Your task to perform on an android device: Open Maps and search for coffee Image 0: 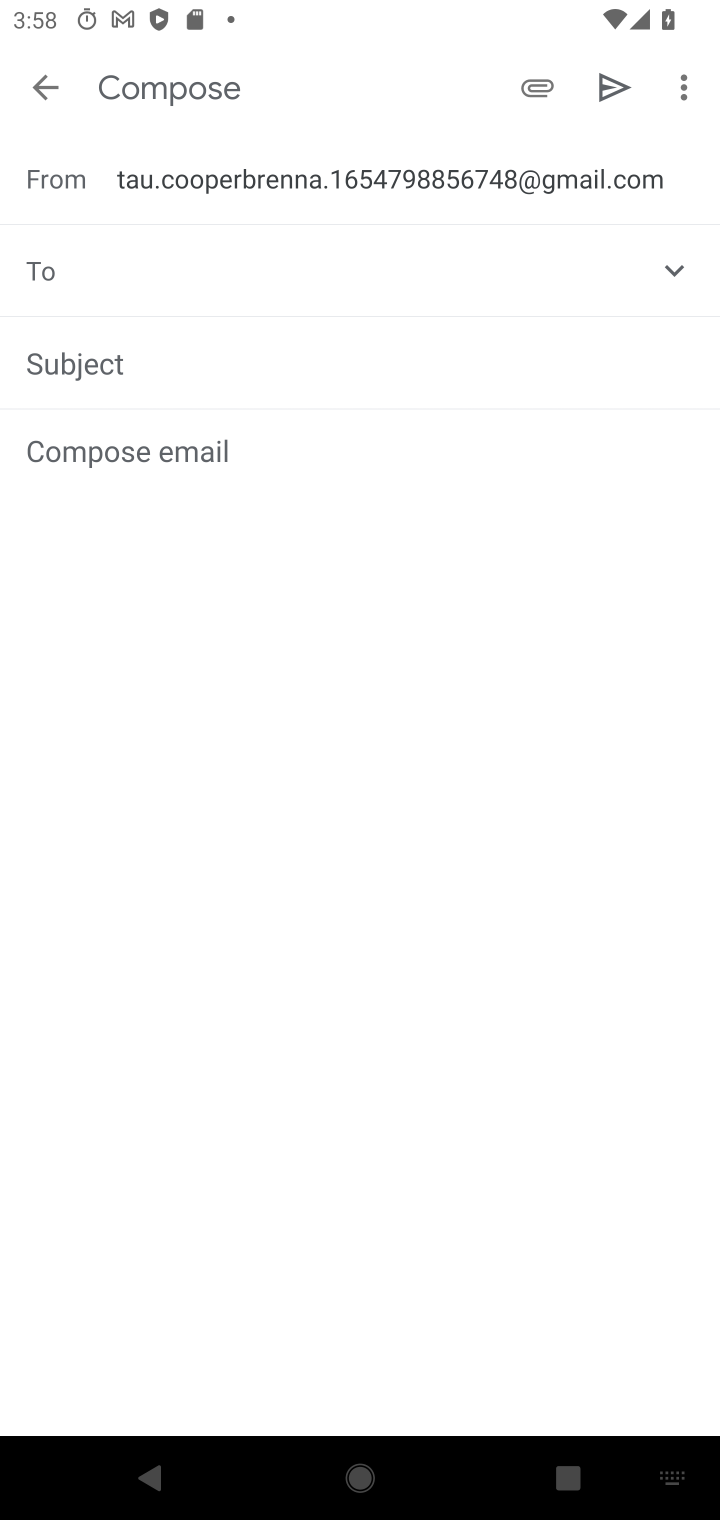
Step 0: press home button
Your task to perform on an android device: Open Maps and search for coffee Image 1: 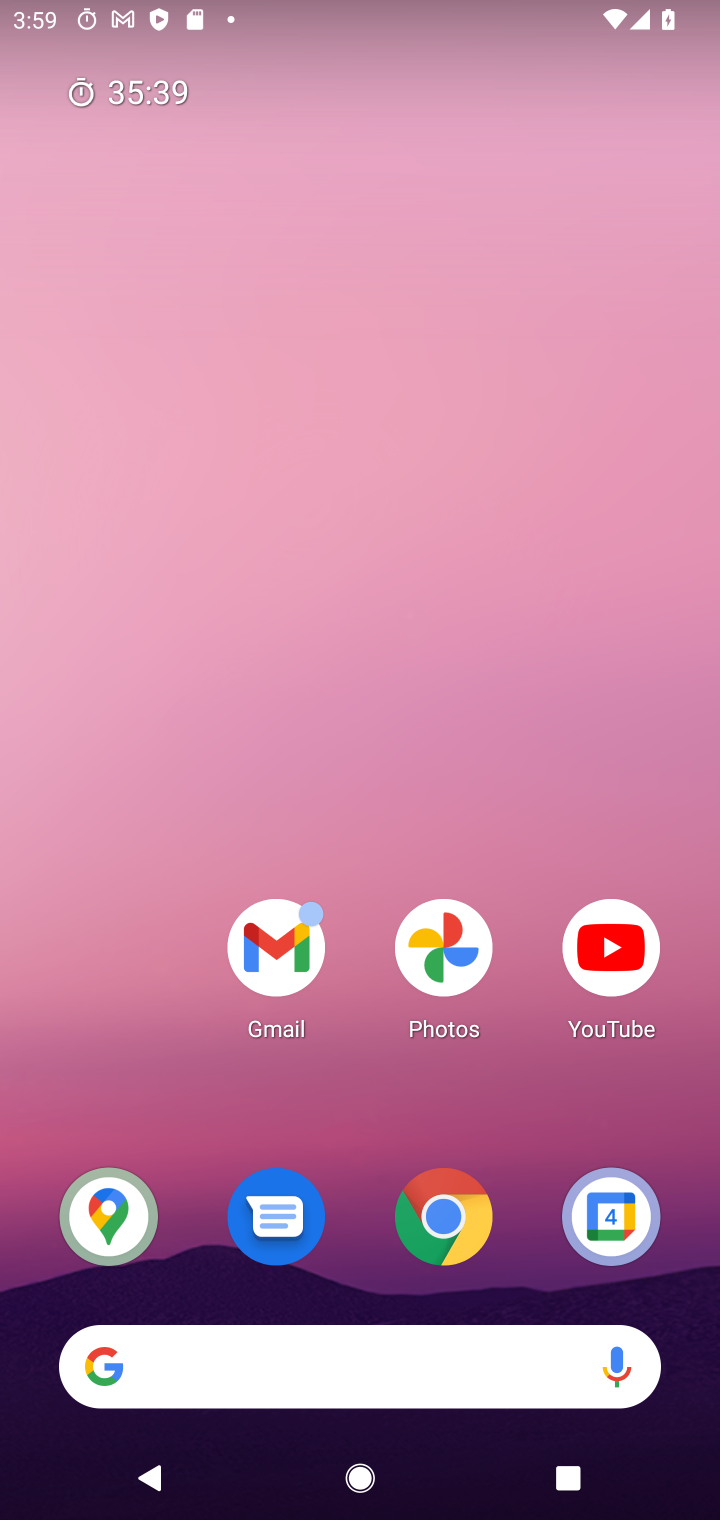
Step 1: drag from (18, 1276) to (671, 129)
Your task to perform on an android device: Open Maps and search for coffee Image 2: 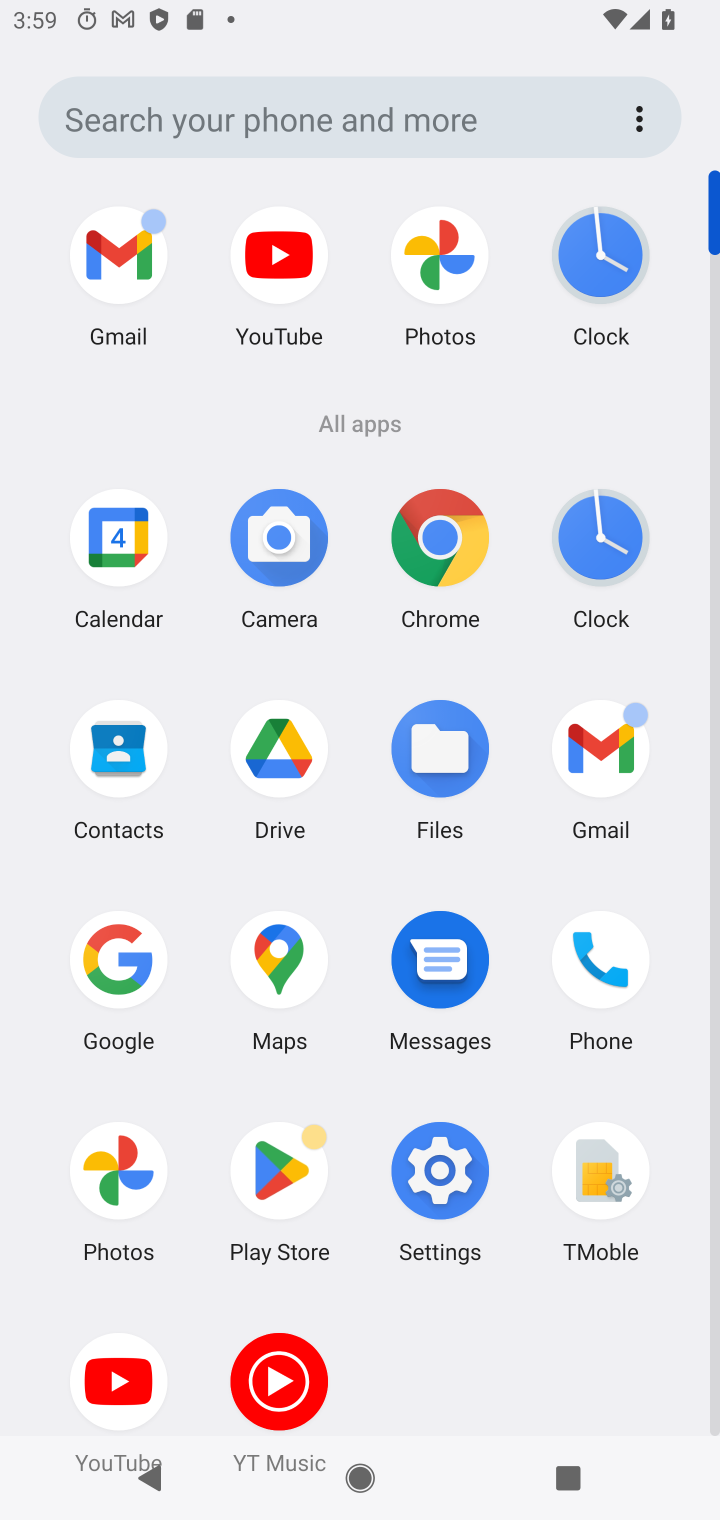
Step 2: click (289, 977)
Your task to perform on an android device: Open Maps and search for coffee Image 3: 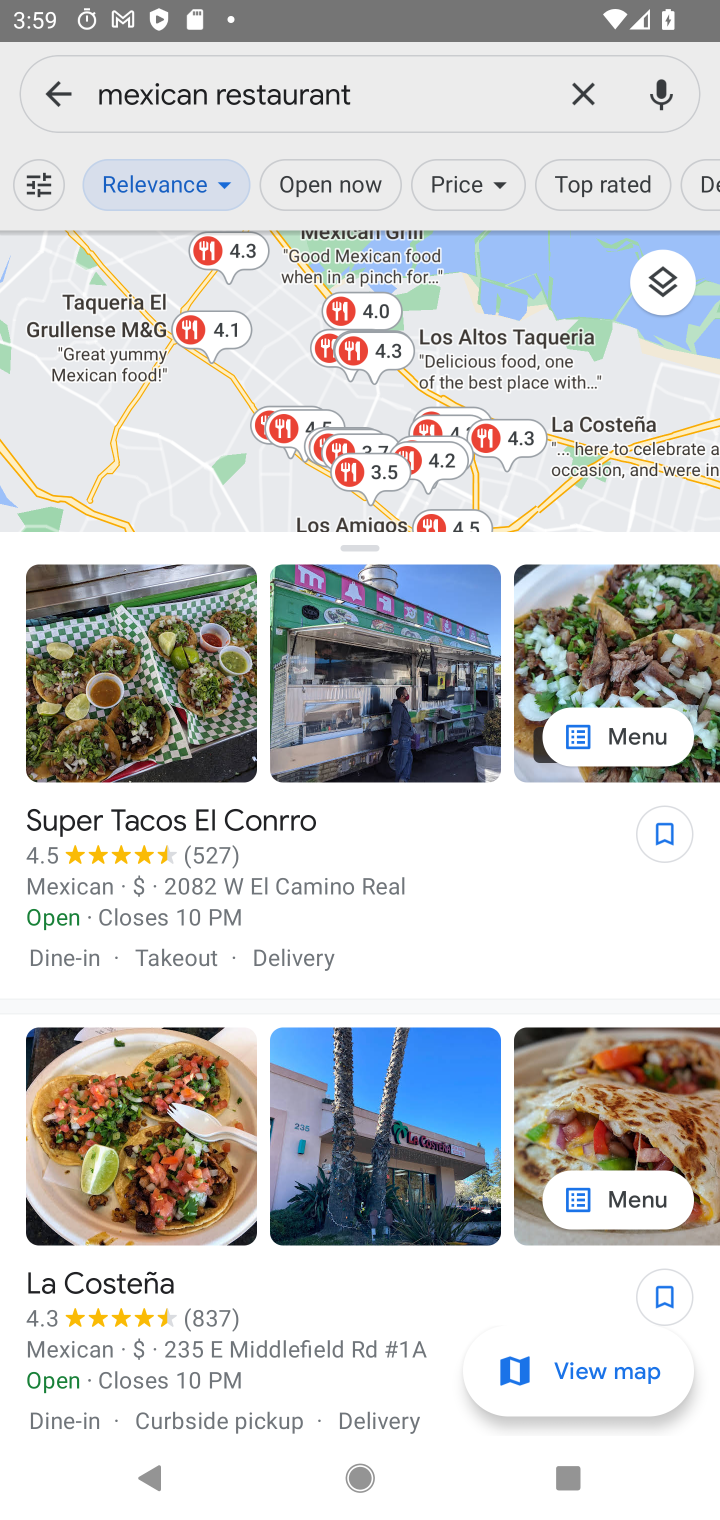
Step 3: click (590, 93)
Your task to perform on an android device: Open Maps and search for coffee Image 4: 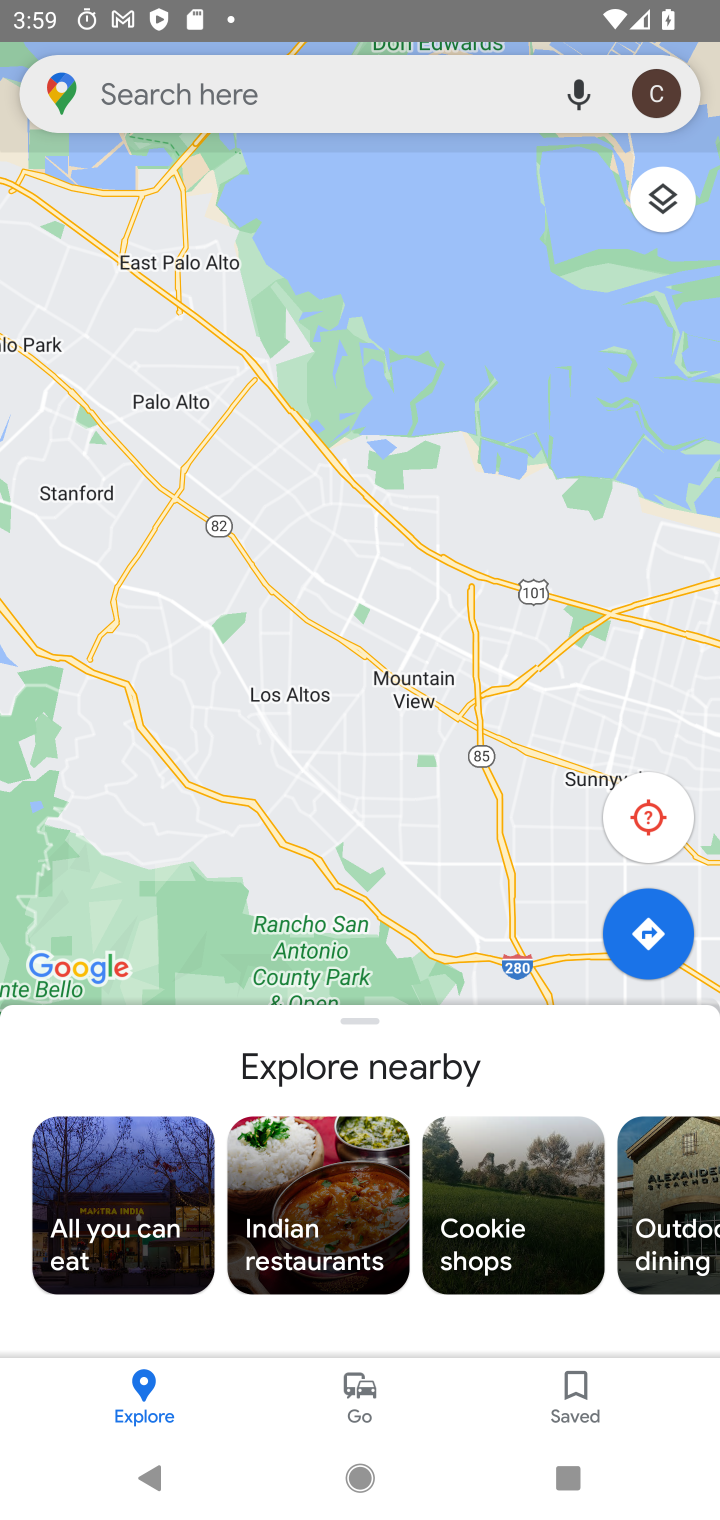
Step 4: click (381, 86)
Your task to perform on an android device: Open Maps and search for coffee Image 5: 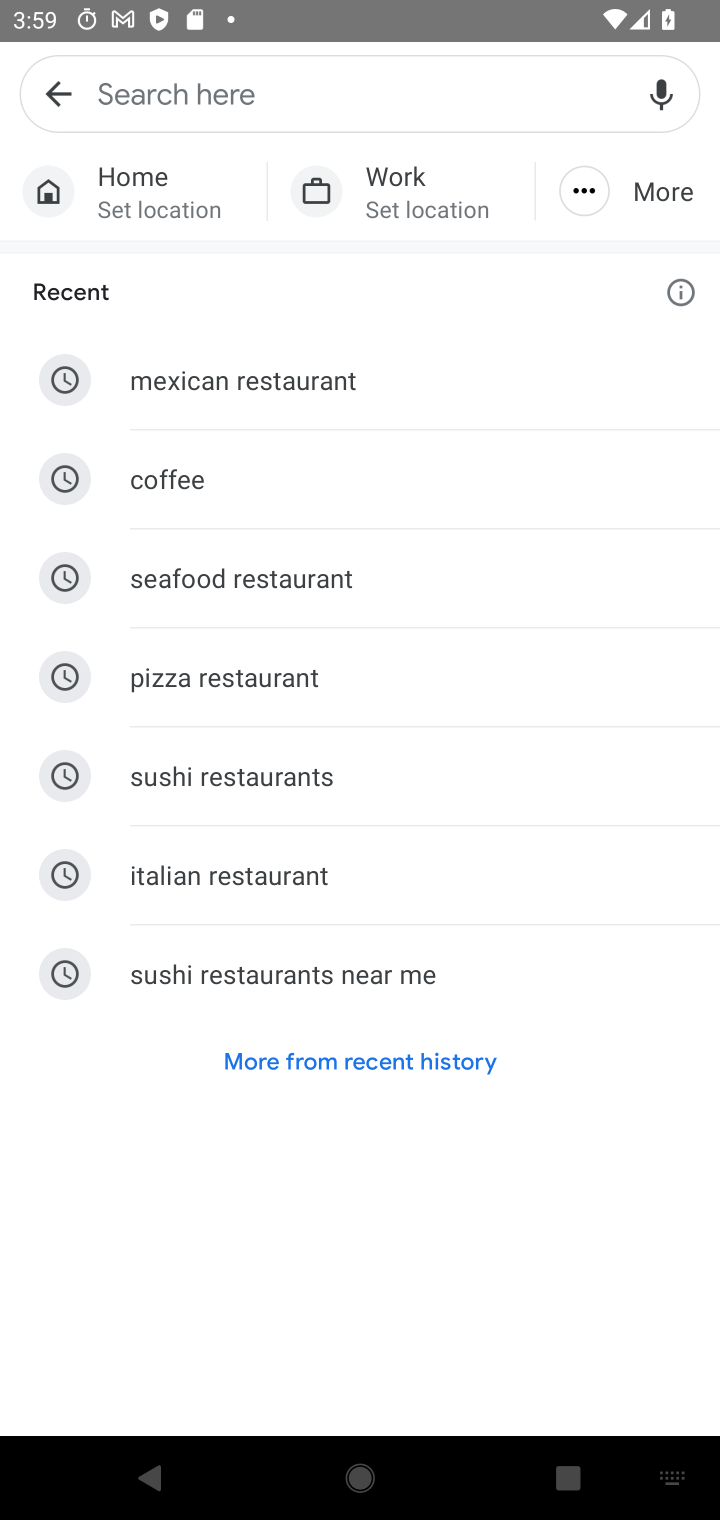
Step 5: type "coffee"
Your task to perform on an android device: Open Maps and search for coffee Image 6: 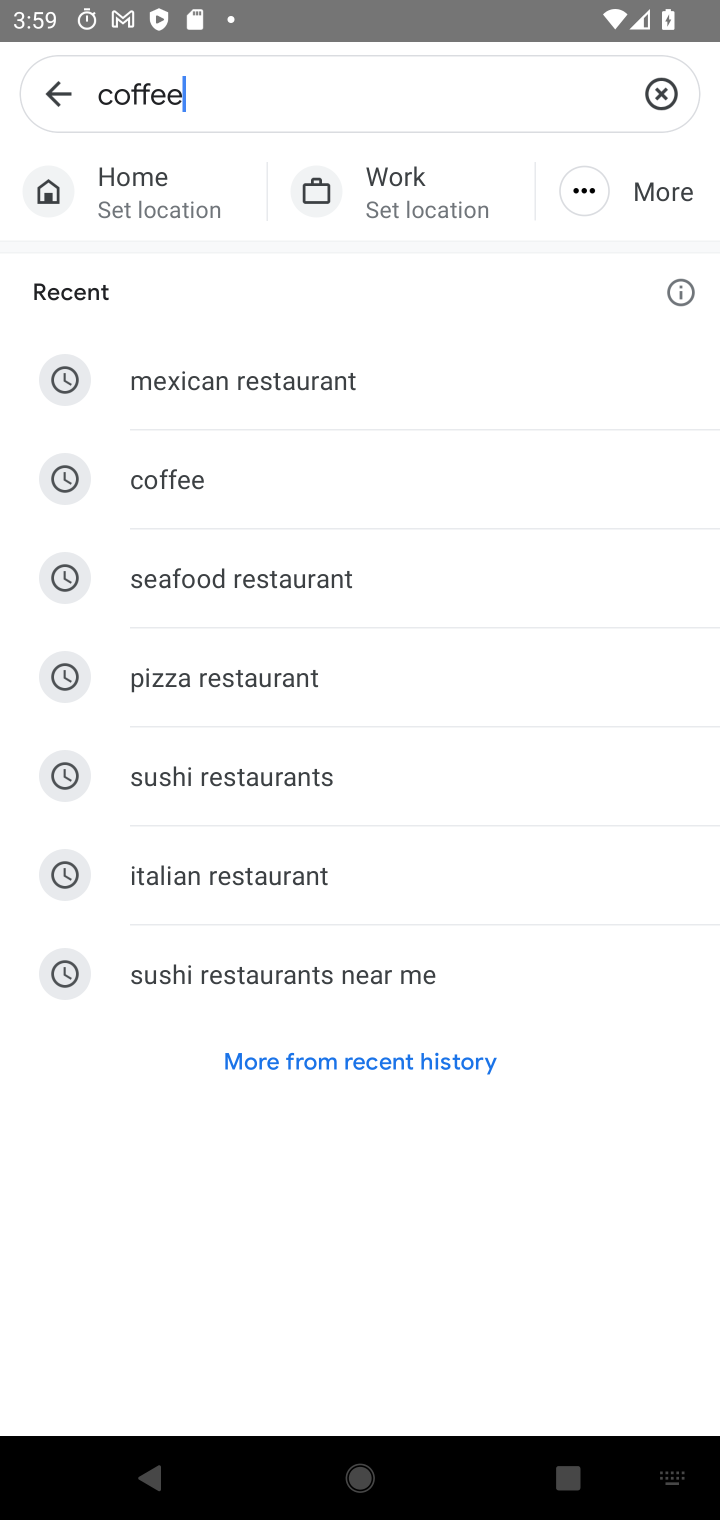
Step 6: type ""
Your task to perform on an android device: Open Maps and search for coffee Image 7: 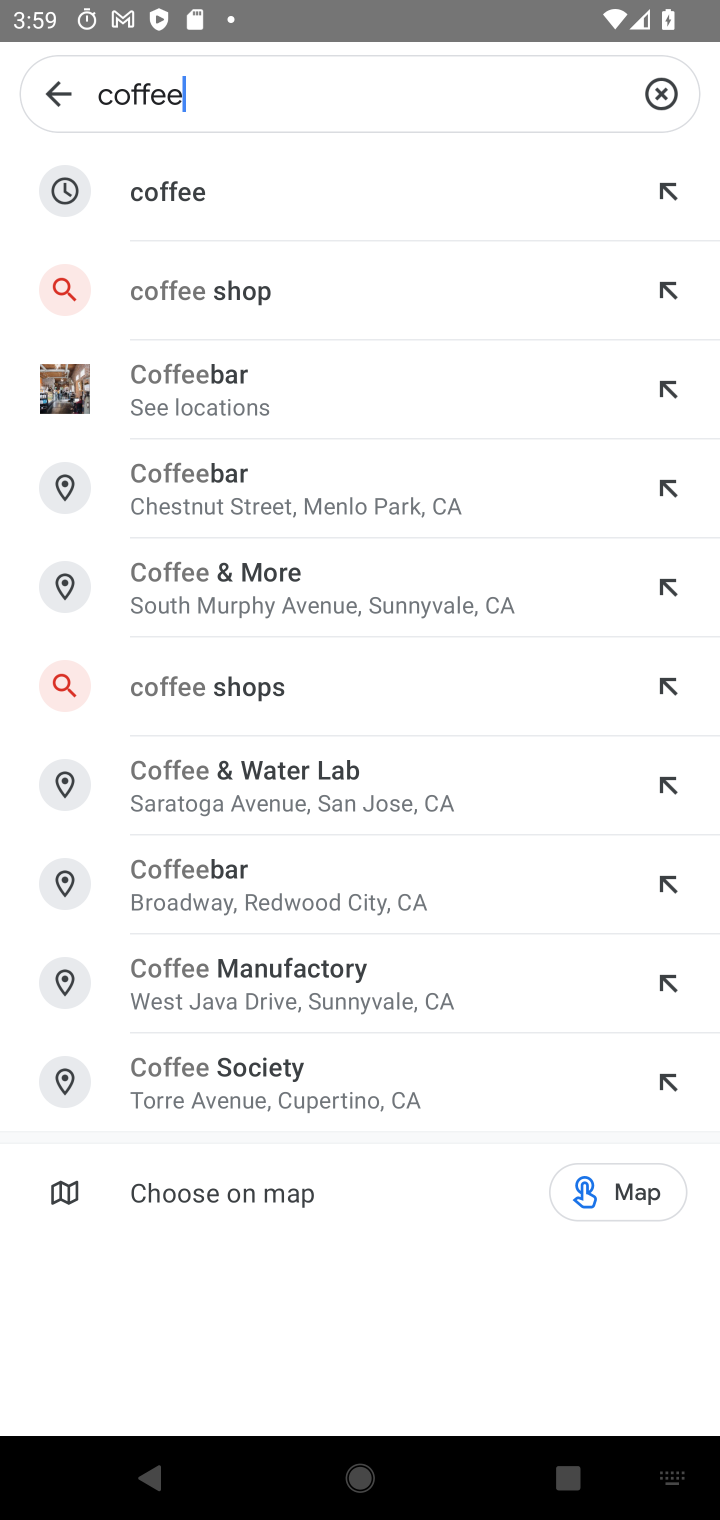
Step 7: click (330, 181)
Your task to perform on an android device: Open Maps and search for coffee Image 8: 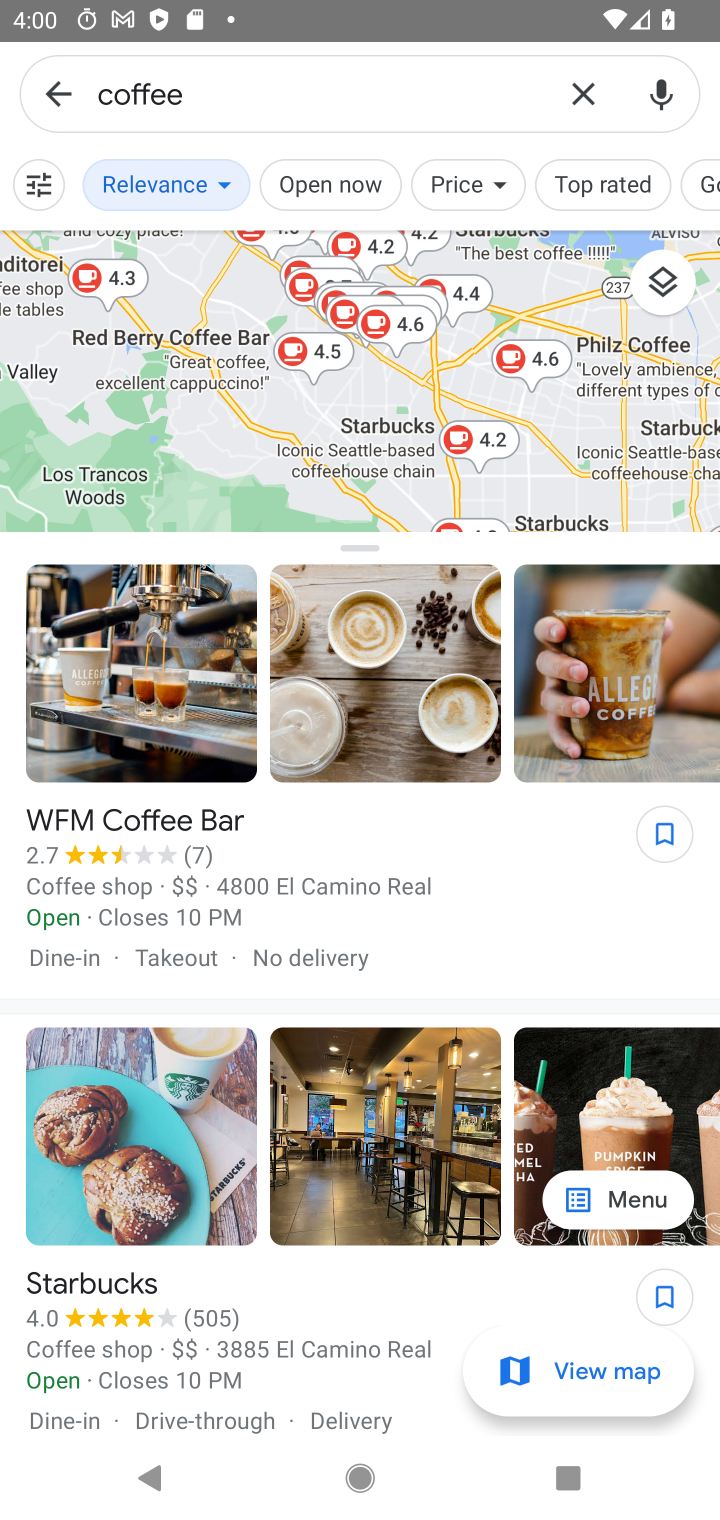
Step 8: task complete